Your task to perform on an android device: When is my next appointment? Image 0: 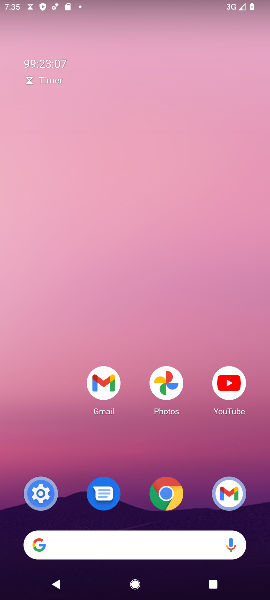
Step 0: drag from (152, 481) to (162, 97)
Your task to perform on an android device: When is my next appointment? Image 1: 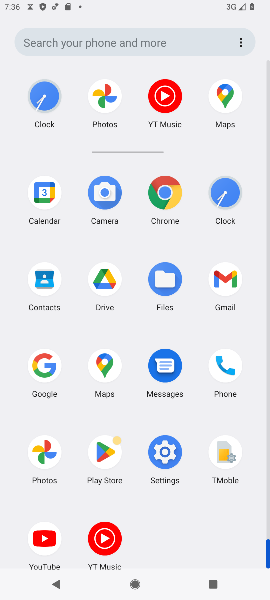
Step 1: click (40, 191)
Your task to perform on an android device: When is my next appointment? Image 2: 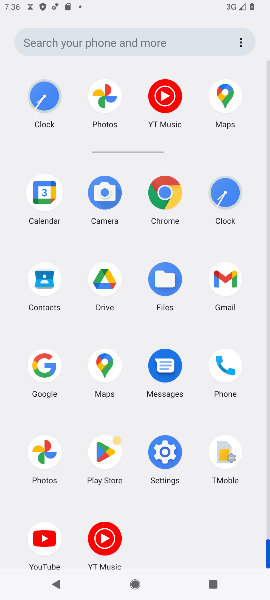
Step 2: click (40, 191)
Your task to perform on an android device: When is my next appointment? Image 3: 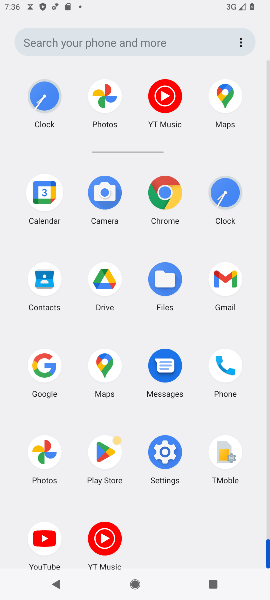
Step 3: click (40, 191)
Your task to perform on an android device: When is my next appointment? Image 4: 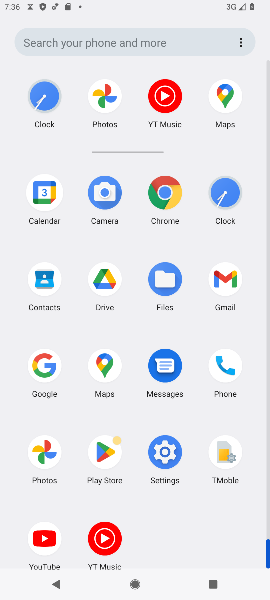
Step 4: click (35, 190)
Your task to perform on an android device: When is my next appointment? Image 5: 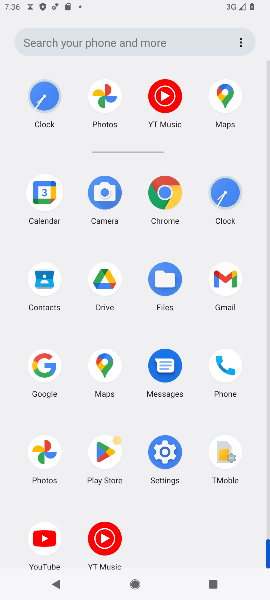
Step 5: click (35, 190)
Your task to perform on an android device: When is my next appointment? Image 6: 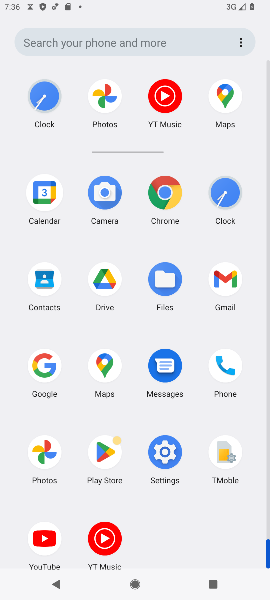
Step 6: click (40, 197)
Your task to perform on an android device: When is my next appointment? Image 7: 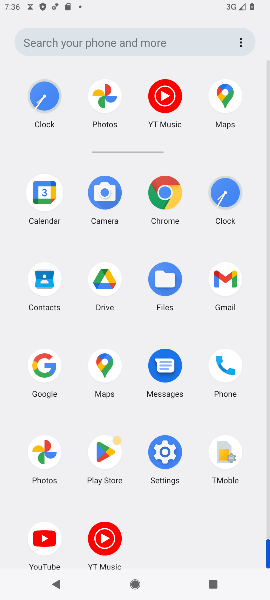
Step 7: click (40, 197)
Your task to perform on an android device: When is my next appointment? Image 8: 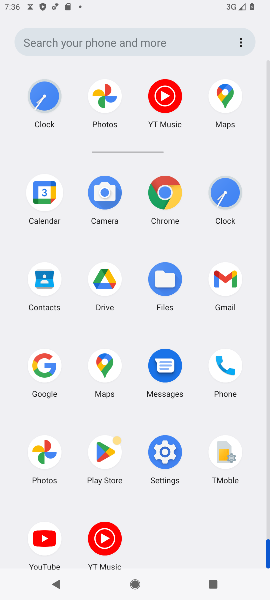
Step 8: click (36, 206)
Your task to perform on an android device: When is my next appointment? Image 9: 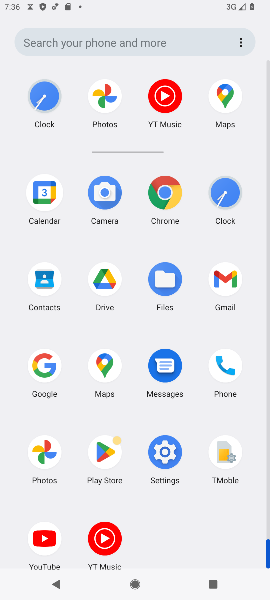
Step 9: click (36, 203)
Your task to perform on an android device: When is my next appointment? Image 10: 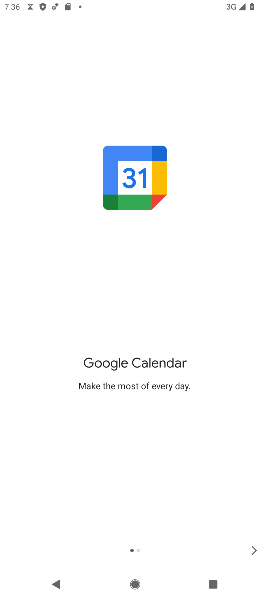
Step 10: click (248, 549)
Your task to perform on an android device: When is my next appointment? Image 11: 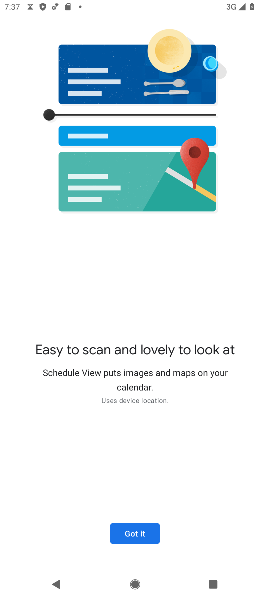
Step 11: click (143, 534)
Your task to perform on an android device: When is my next appointment? Image 12: 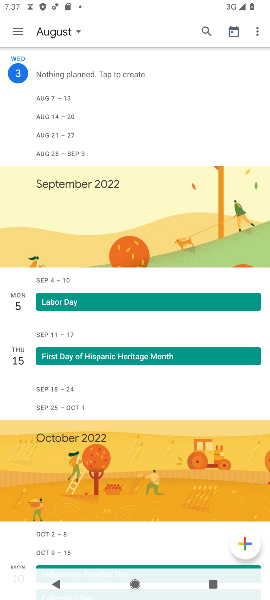
Step 12: click (17, 30)
Your task to perform on an android device: When is my next appointment? Image 13: 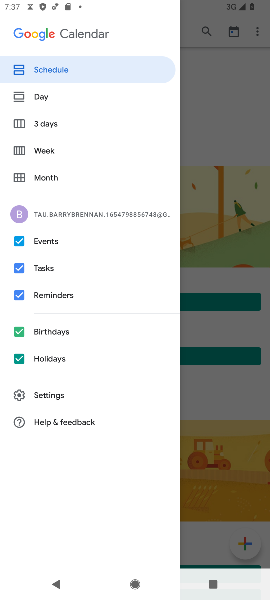
Step 13: click (58, 151)
Your task to perform on an android device: When is my next appointment? Image 14: 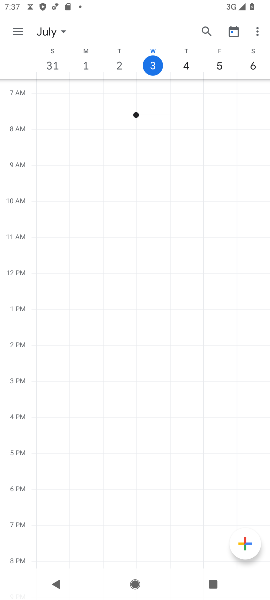
Step 14: click (185, 64)
Your task to perform on an android device: When is my next appointment? Image 15: 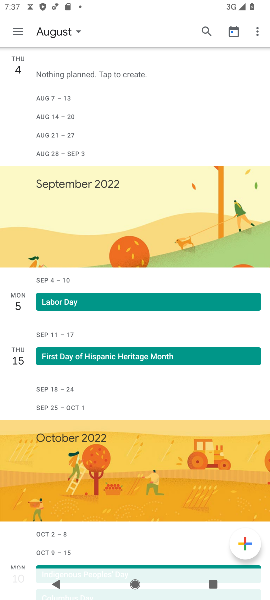
Step 15: task complete